Your task to perform on an android device: toggle notifications settings in the gmail app Image 0: 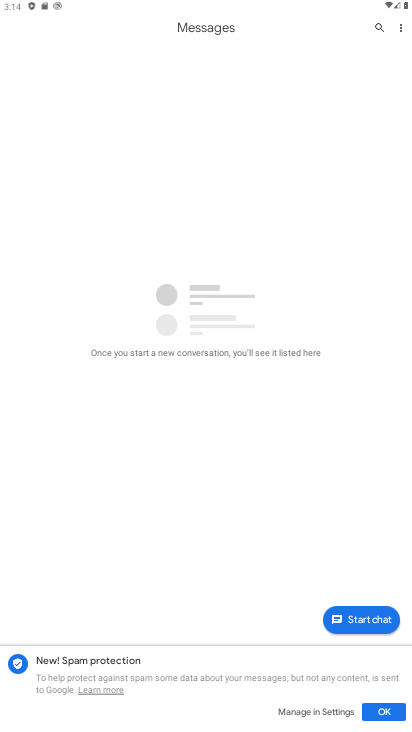
Step 0: press back button
Your task to perform on an android device: toggle notifications settings in the gmail app Image 1: 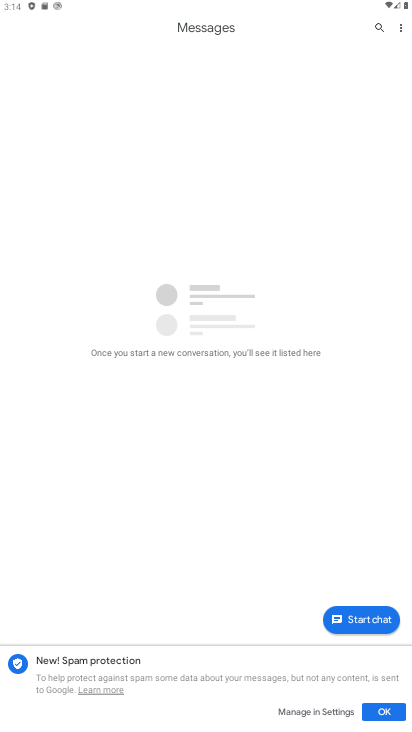
Step 1: press back button
Your task to perform on an android device: toggle notifications settings in the gmail app Image 2: 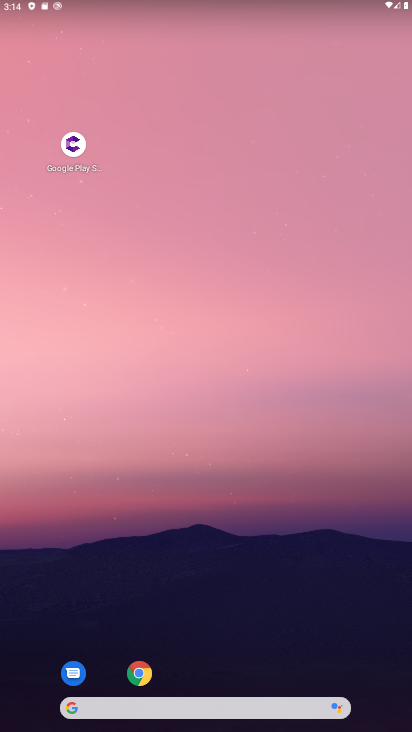
Step 2: drag from (209, 614) to (207, 70)
Your task to perform on an android device: toggle notifications settings in the gmail app Image 3: 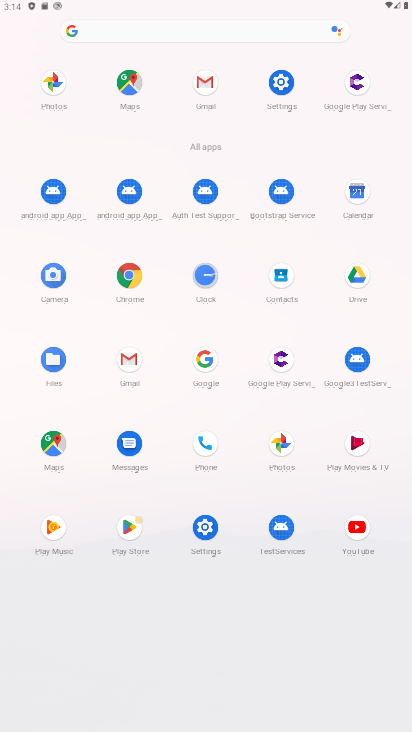
Step 3: click (204, 524)
Your task to perform on an android device: toggle notifications settings in the gmail app Image 4: 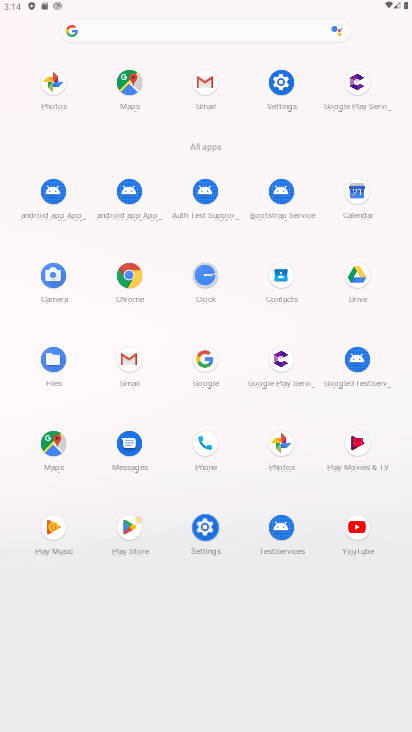
Step 4: click (203, 526)
Your task to perform on an android device: toggle notifications settings in the gmail app Image 5: 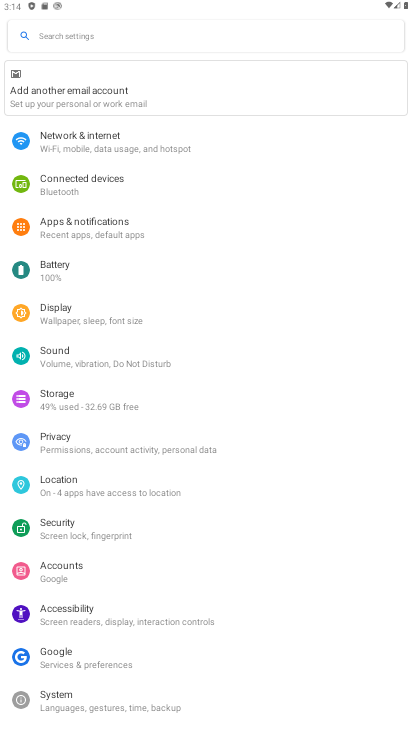
Step 5: click (91, 234)
Your task to perform on an android device: toggle notifications settings in the gmail app Image 6: 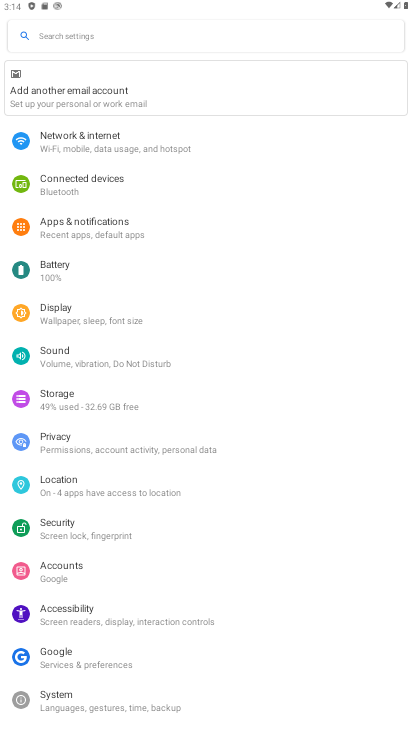
Step 6: click (95, 229)
Your task to perform on an android device: toggle notifications settings in the gmail app Image 7: 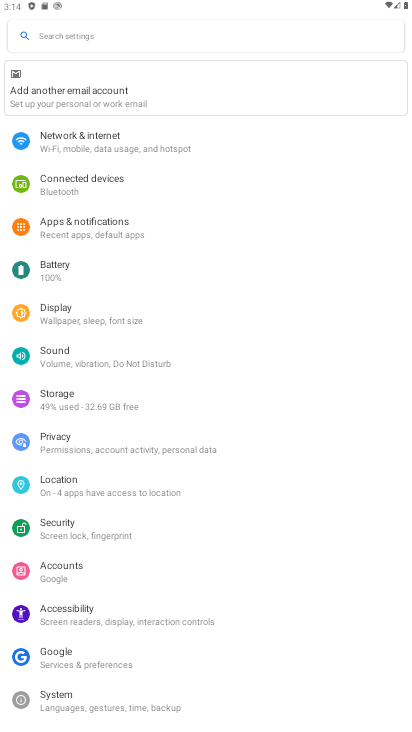
Step 7: click (106, 225)
Your task to perform on an android device: toggle notifications settings in the gmail app Image 8: 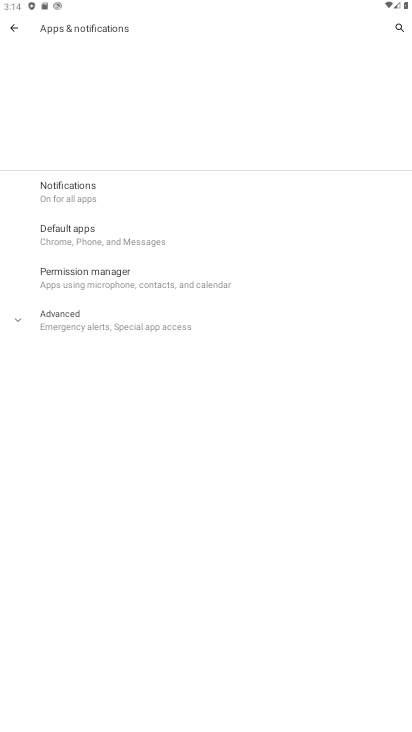
Step 8: click (103, 235)
Your task to perform on an android device: toggle notifications settings in the gmail app Image 9: 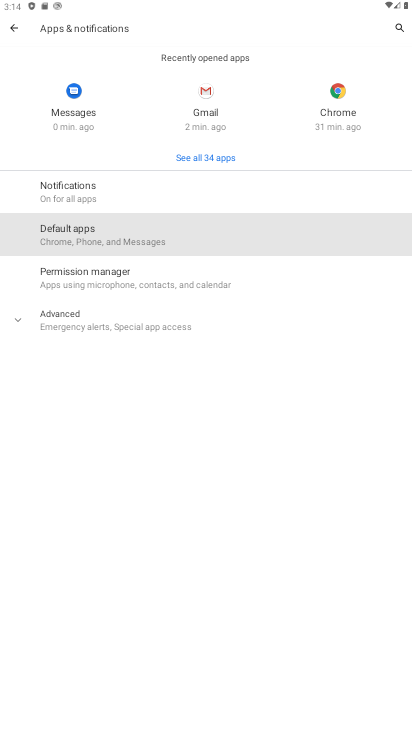
Step 9: click (100, 240)
Your task to perform on an android device: toggle notifications settings in the gmail app Image 10: 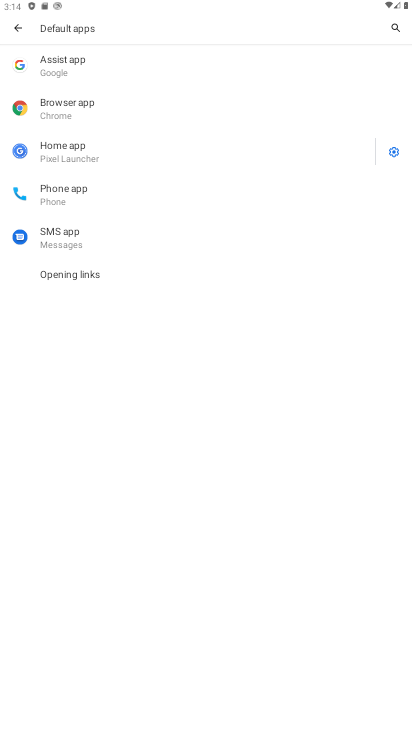
Step 10: click (16, 34)
Your task to perform on an android device: toggle notifications settings in the gmail app Image 11: 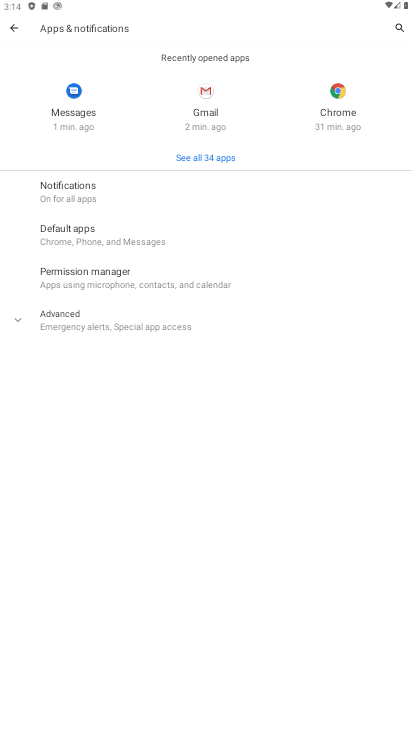
Step 11: click (55, 188)
Your task to perform on an android device: toggle notifications settings in the gmail app Image 12: 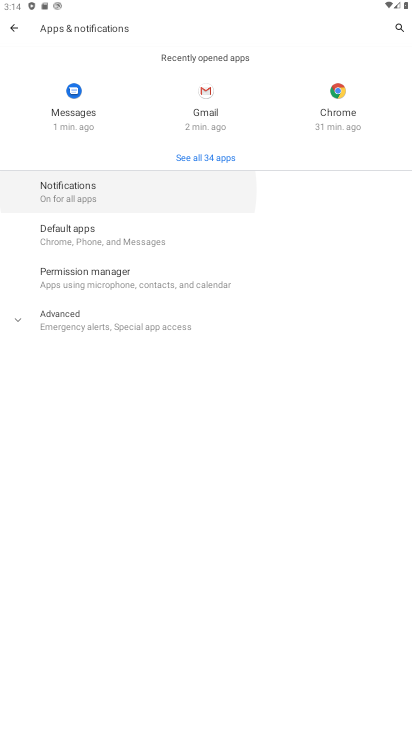
Step 12: click (56, 189)
Your task to perform on an android device: toggle notifications settings in the gmail app Image 13: 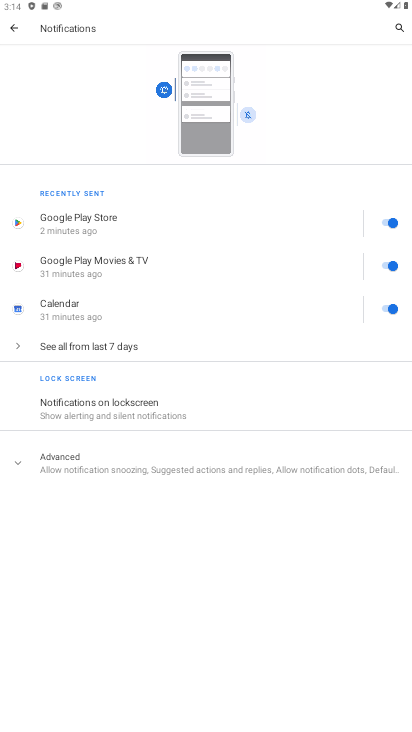
Step 13: click (71, 403)
Your task to perform on an android device: toggle notifications settings in the gmail app Image 14: 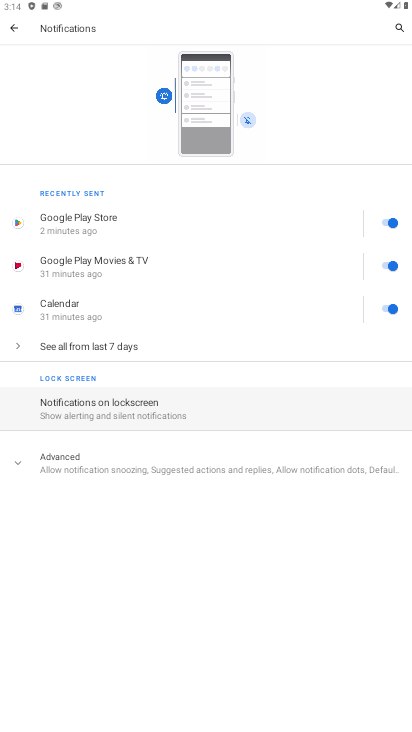
Step 14: click (71, 403)
Your task to perform on an android device: toggle notifications settings in the gmail app Image 15: 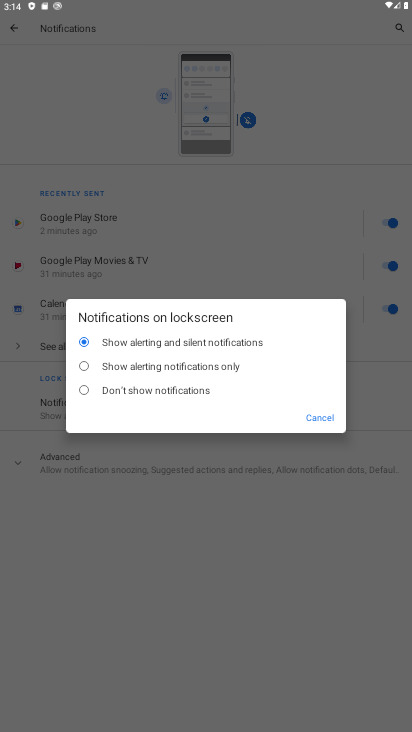
Step 15: click (81, 365)
Your task to perform on an android device: toggle notifications settings in the gmail app Image 16: 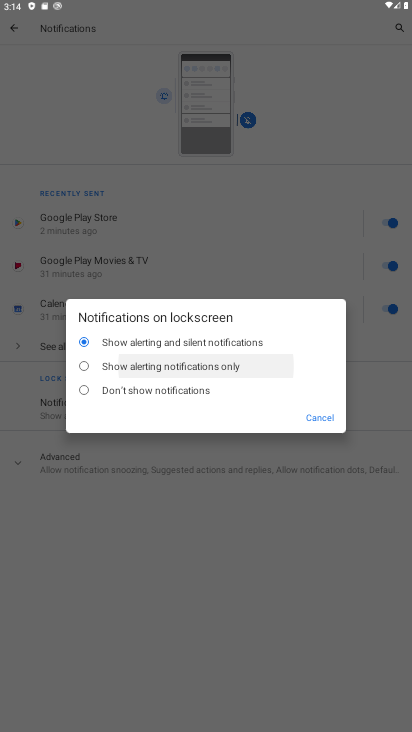
Step 16: click (81, 365)
Your task to perform on an android device: toggle notifications settings in the gmail app Image 17: 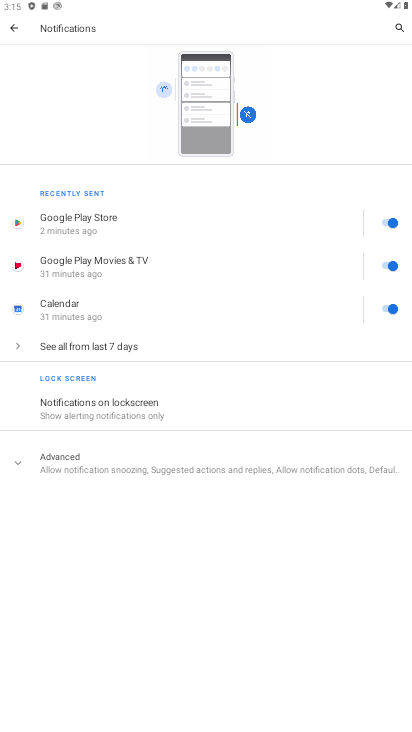
Step 17: task complete